Your task to perform on an android device: turn notification dots off Image 0: 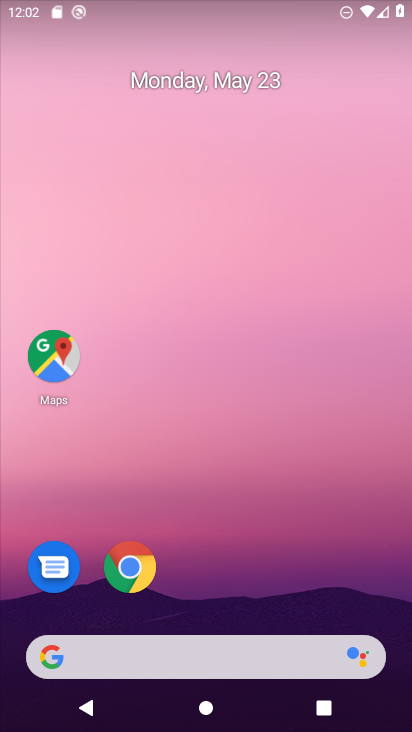
Step 0: drag from (184, 621) to (268, 26)
Your task to perform on an android device: turn notification dots off Image 1: 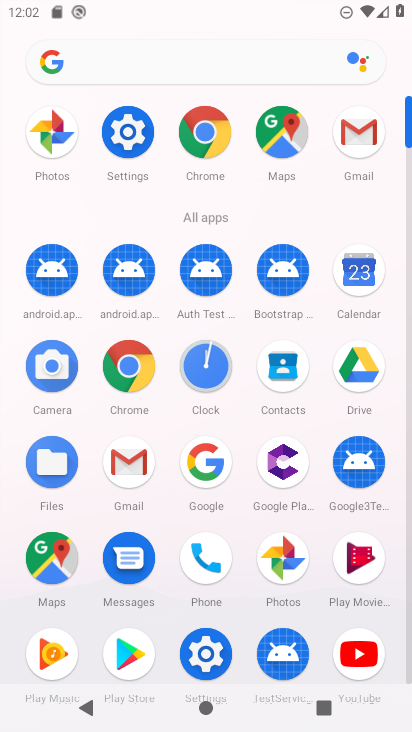
Step 1: click (132, 147)
Your task to perform on an android device: turn notification dots off Image 2: 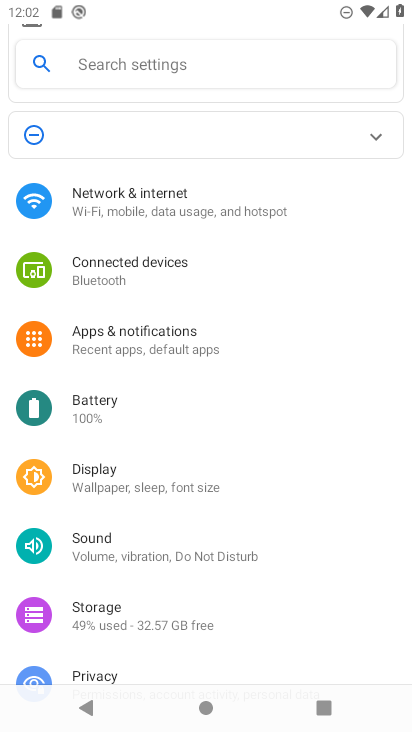
Step 2: click (182, 352)
Your task to perform on an android device: turn notification dots off Image 3: 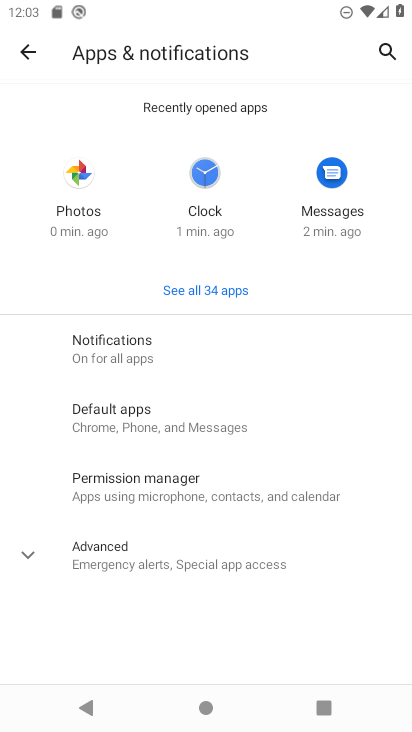
Step 3: click (207, 346)
Your task to perform on an android device: turn notification dots off Image 4: 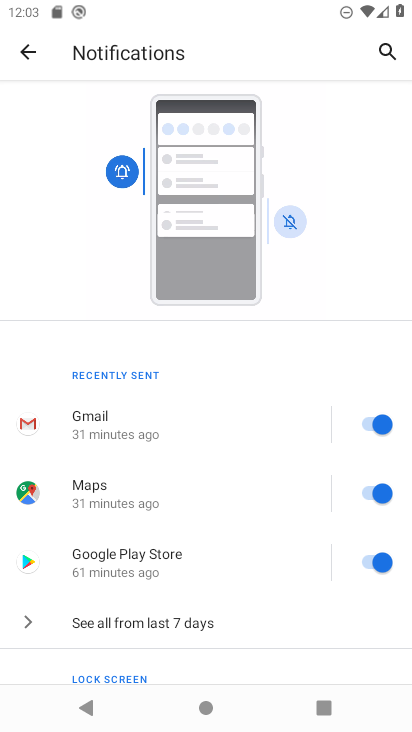
Step 4: drag from (164, 632) to (208, 150)
Your task to perform on an android device: turn notification dots off Image 5: 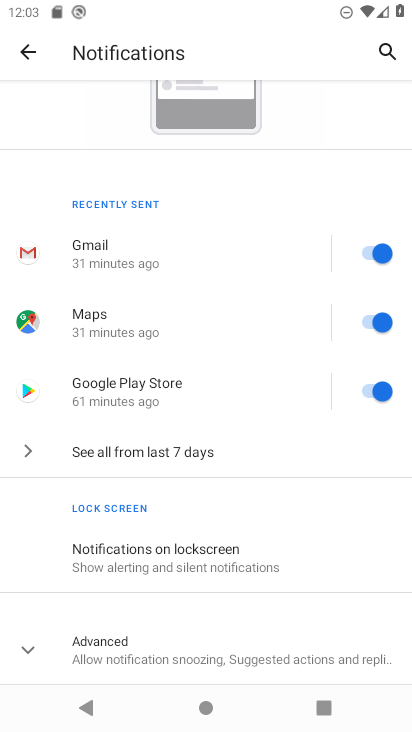
Step 5: click (153, 573)
Your task to perform on an android device: turn notification dots off Image 6: 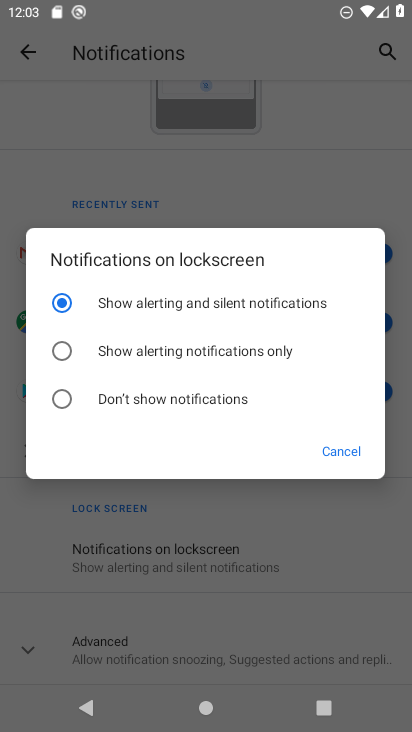
Step 6: click (359, 450)
Your task to perform on an android device: turn notification dots off Image 7: 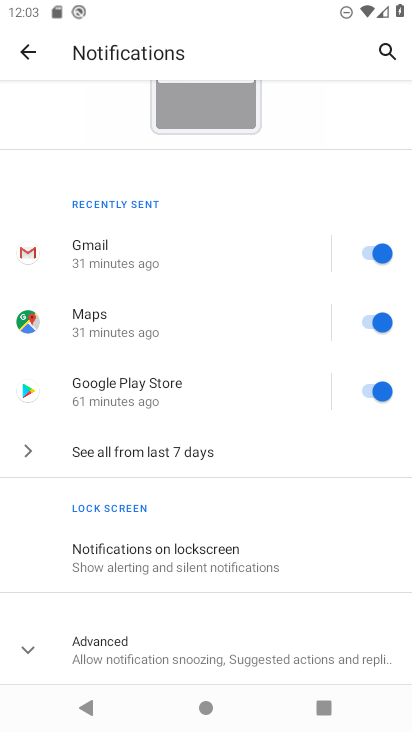
Step 7: click (120, 658)
Your task to perform on an android device: turn notification dots off Image 8: 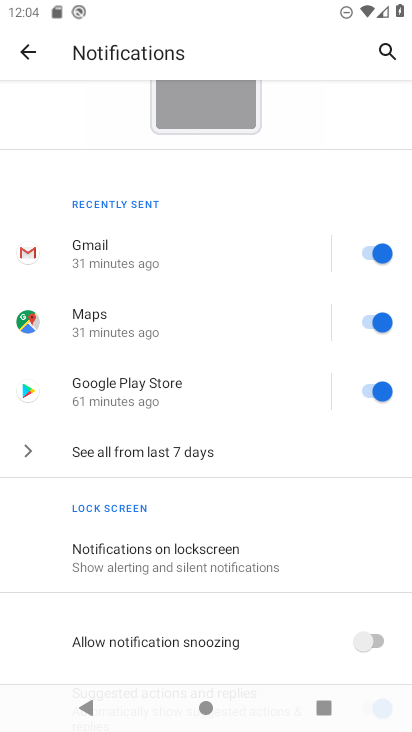
Step 8: drag from (120, 658) to (187, 184)
Your task to perform on an android device: turn notification dots off Image 9: 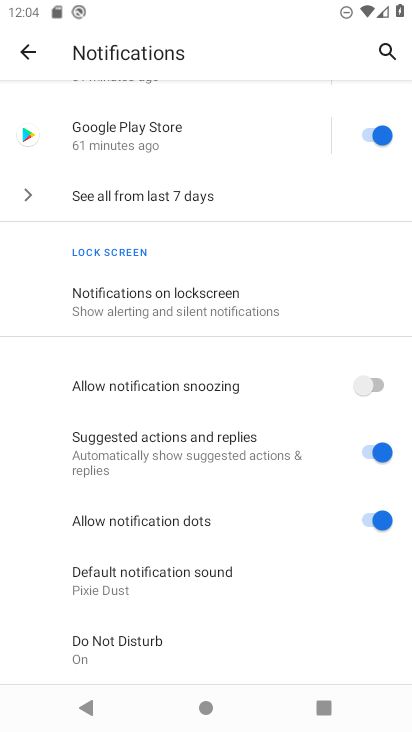
Step 9: click (394, 523)
Your task to perform on an android device: turn notification dots off Image 10: 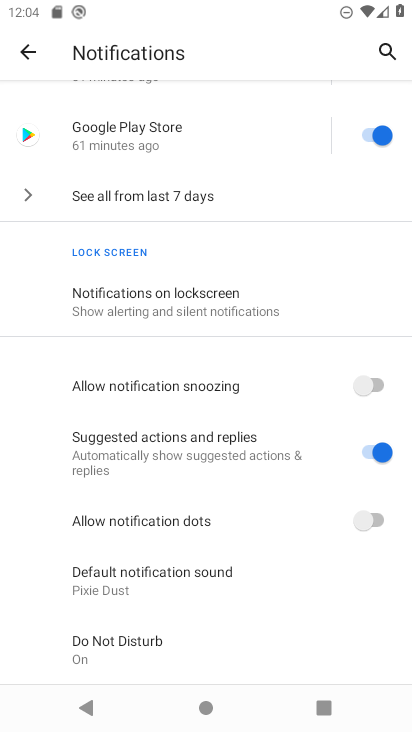
Step 10: task complete